Your task to perform on an android device: Is it going to rain this weekend? Image 0: 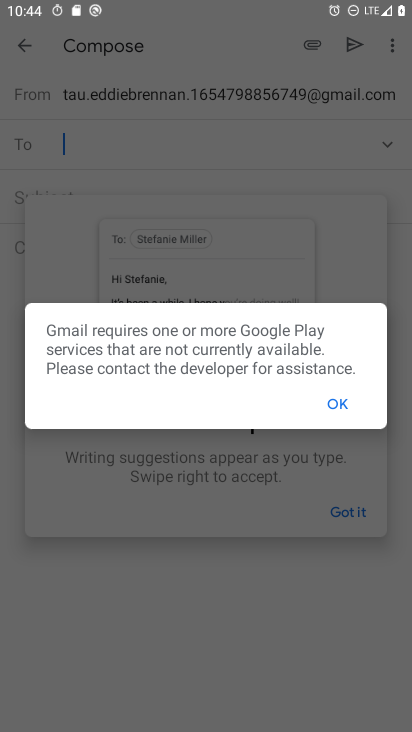
Step 0: press home button
Your task to perform on an android device: Is it going to rain this weekend? Image 1: 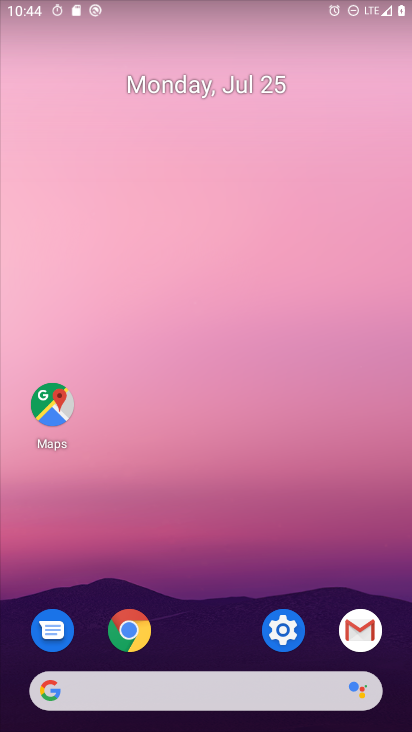
Step 1: click (205, 680)
Your task to perform on an android device: Is it going to rain this weekend? Image 2: 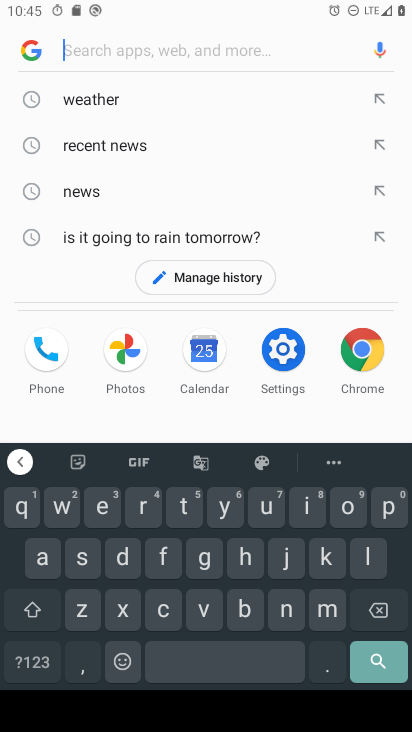
Step 2: click (303, 510)
Your task to perform on an android device: Is it going to rain this weekend? Image 3: 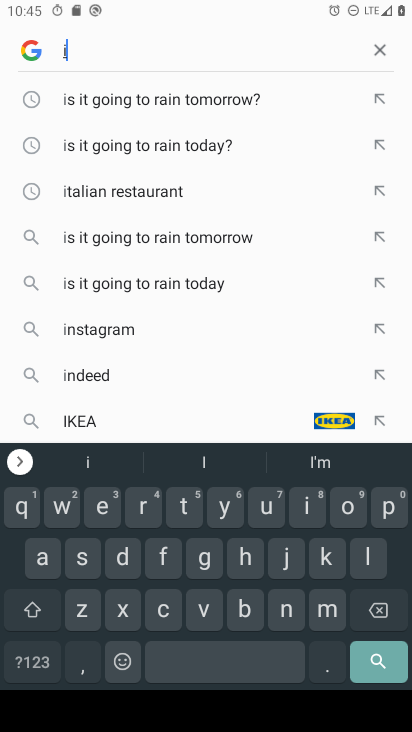
Step 3: click (72, 566)
Your task to perform on an android device: Is it going to rain this weekend? Image 4: 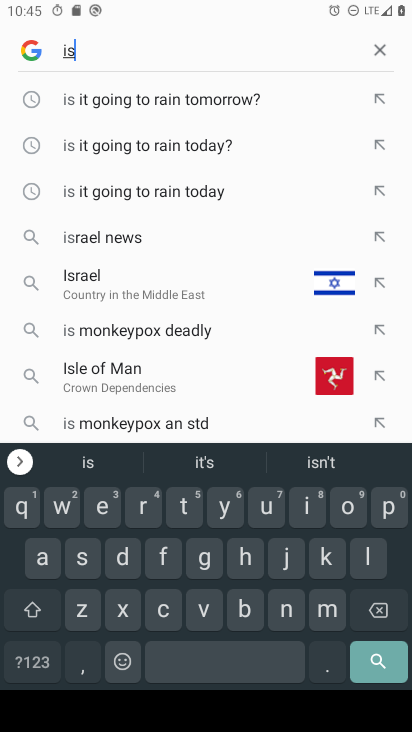
Step 4: click (93, 465)
Your task to perform on an android device: Is it going to rain this weekend? Image 5: 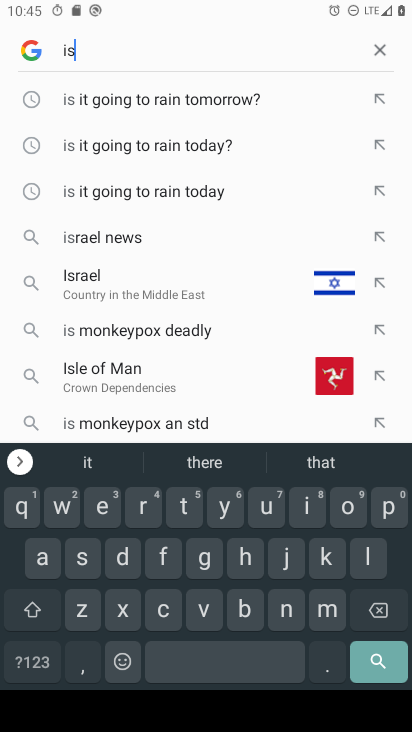
Step 5: click (106, 464)
Your task to perform on an android device: Is it going to rain this weekend? Image 6: 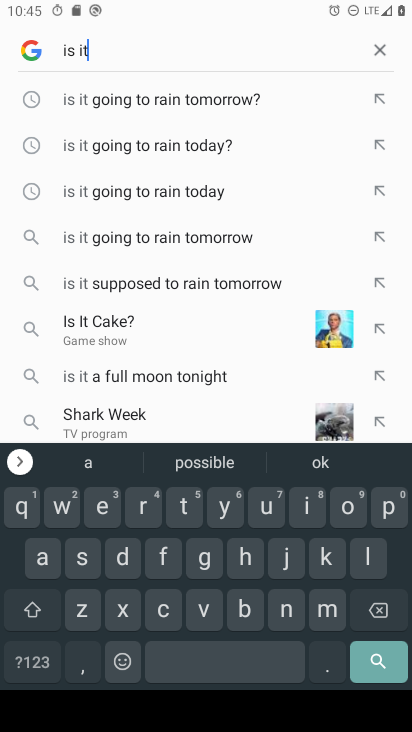
Step 6: click (199, 567)
Your task to perform on an android device: Is it going to rain this weekend? Image 7: 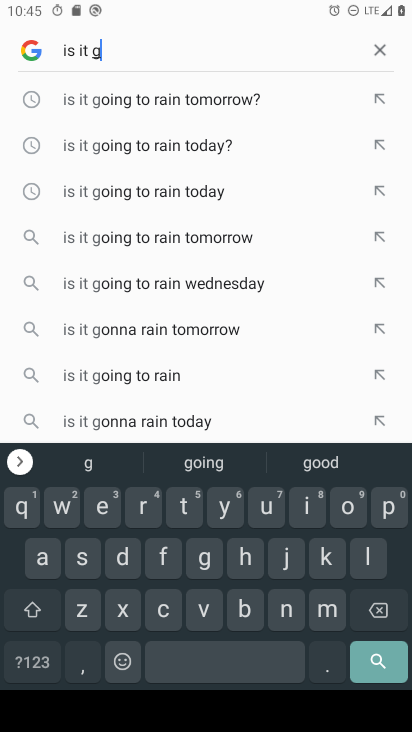
Step 7: click (215, 468)
Your task to perform on an android device: Is it going to rain this weekend? Image 8: 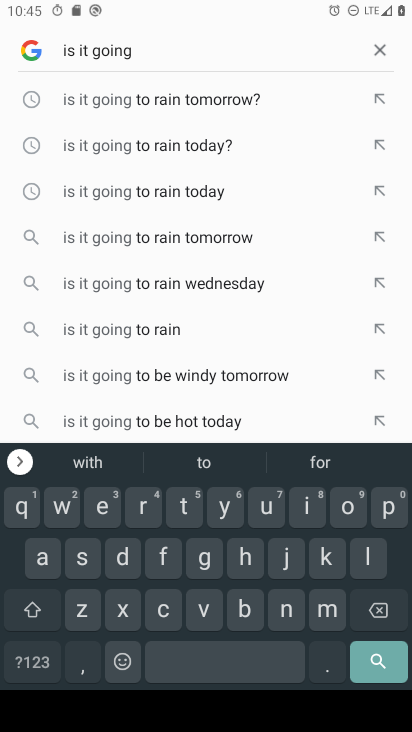
Step 8: click (215, 468)
Your task to perform on an android device: Is it going to rain this weekend? Image 9: 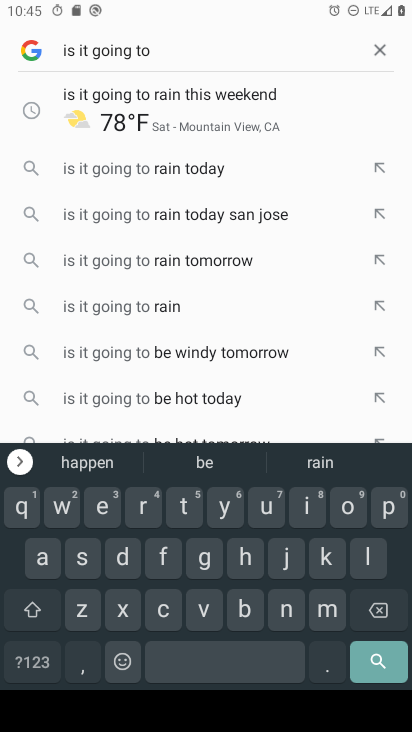
Step 9: click (198, 101)
Your task to perform on an android device: Is it going to rain this weekend? Image 10: 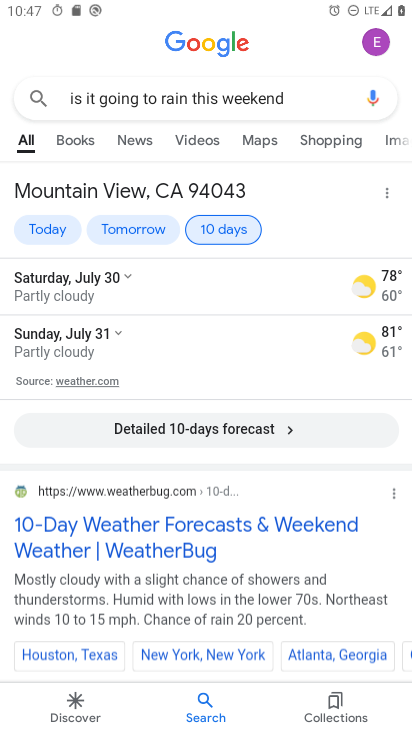
Step 10: task complete